Your task to perform on an android device: Open sound settings Image 0: 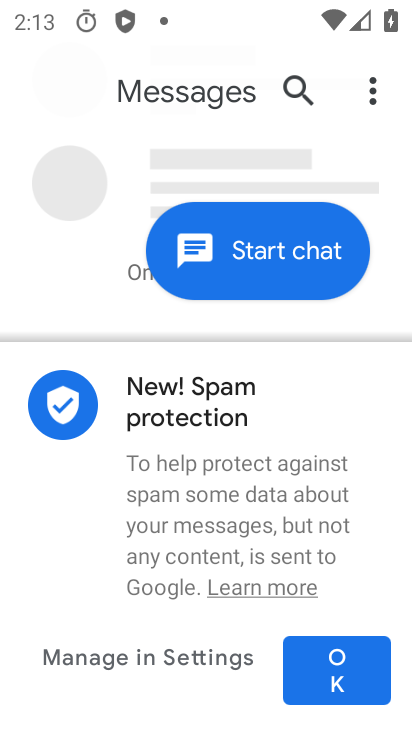
Step 0: click (337, 668)
Your task to perform on an android device: Open sound settings Image 1: 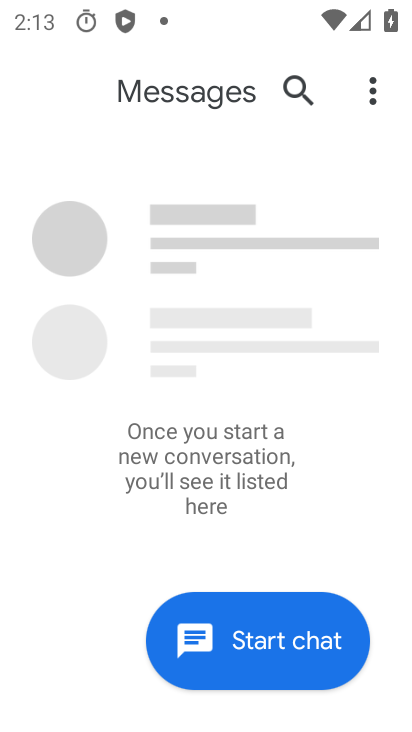
Step 1: press home button
Your task to perform on an android device: Open sound settings Image 2: 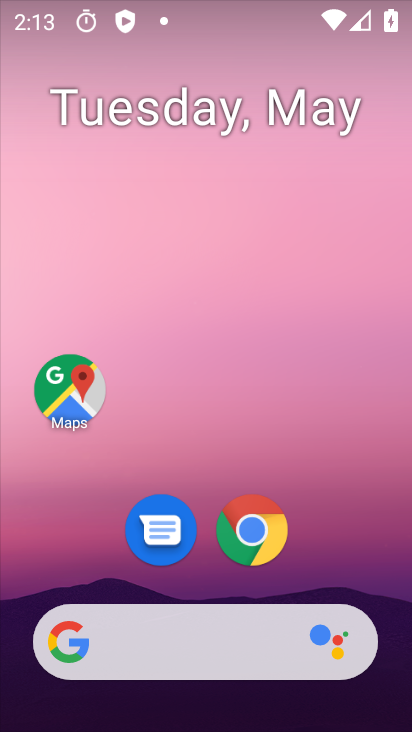
Step 2: drag from (215, 596) to (191, 16)
Your task to perform on an android device: Open sound settings Image 3: 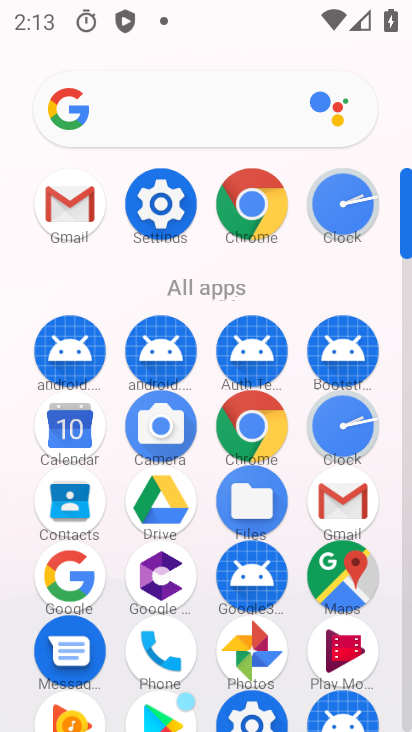
Step 3: click (161, 196)
Your task to perform on an android device: Open sound settings Image 4: 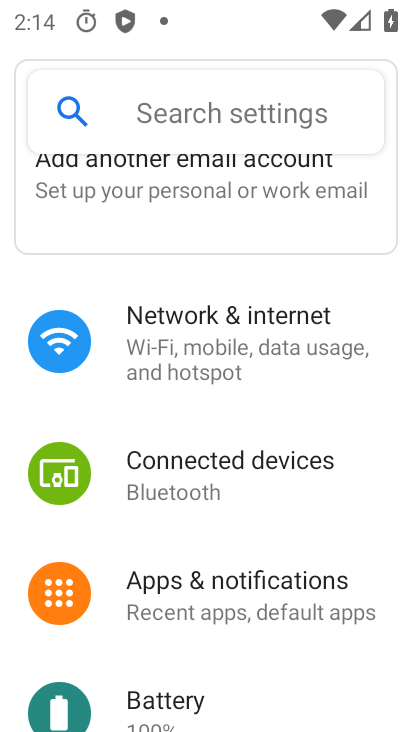
Step 4: drag from (202, 640) to (157, 293)
Your task to perform on an android device: Open sound settings Image 5: 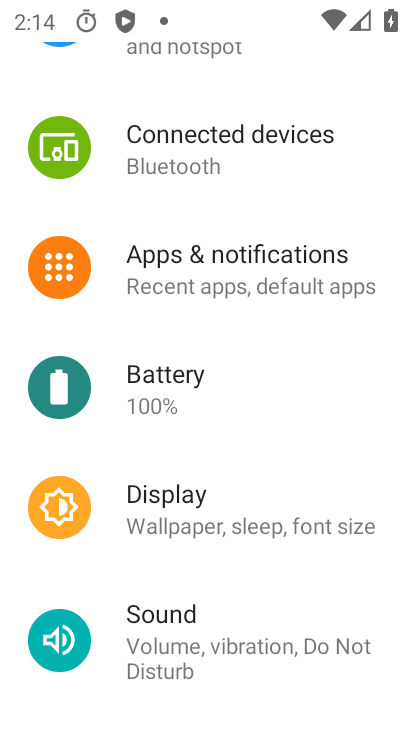
Step 5: click (152, 648)
Your task to perform on an android device: Open sound settings Image 6: 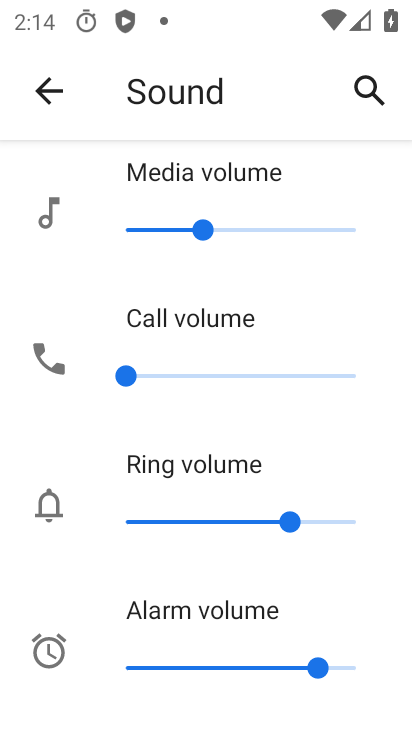
Step 6: task complete